Your task to perform on an android device: Show me popular games on the Play Store Image 0: 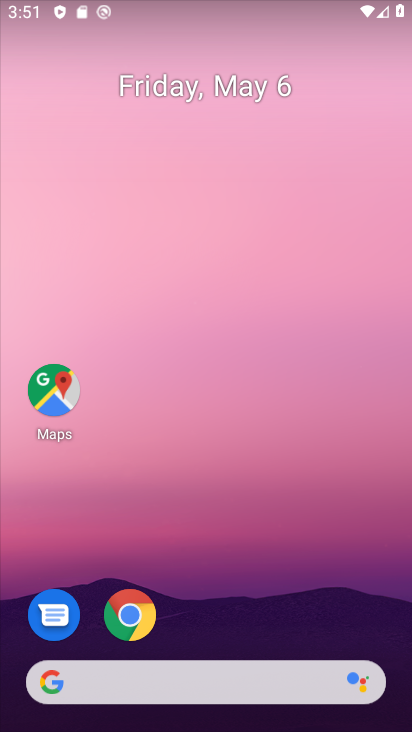
Step 0: drag from (193, 659) to (407, 320)
Your task to perform on an android device: Show me popular games on the Play Store Image 1: 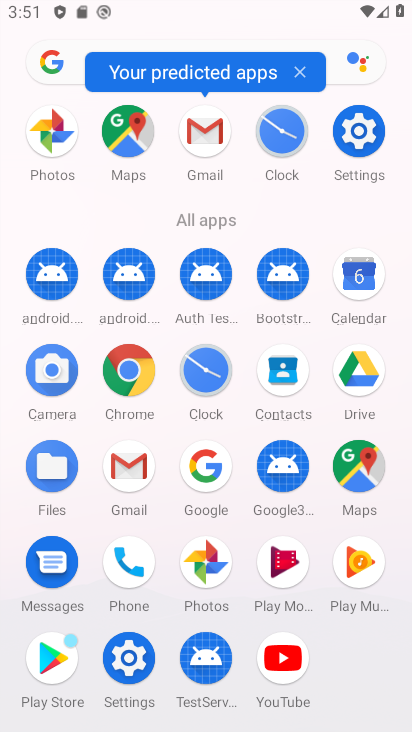
Step 1: click (42, 669)
Your task to perform on an android device: Show me popular games on the Play Store Image 2: 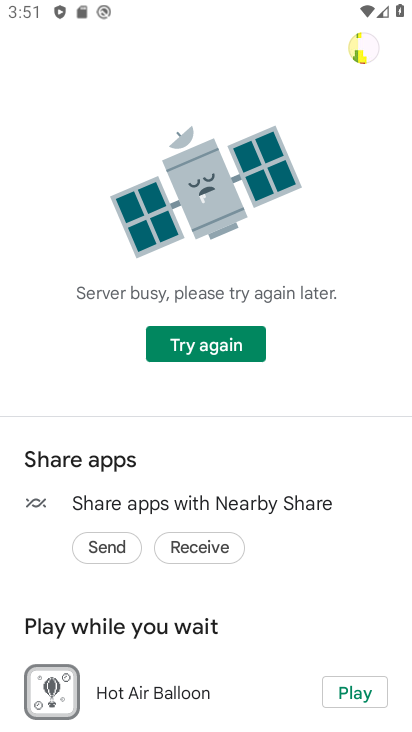
Step 2: click (187, 325)
Your task to perform on an android device: Show me popular games on the Play Store Image 3: 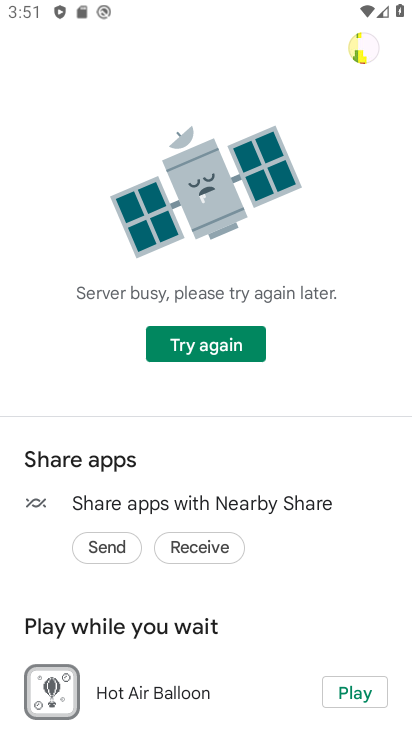
Step 3: click (184, 348)
Your task to perform on an android device: Show me popular games on the Play Store Image 4: 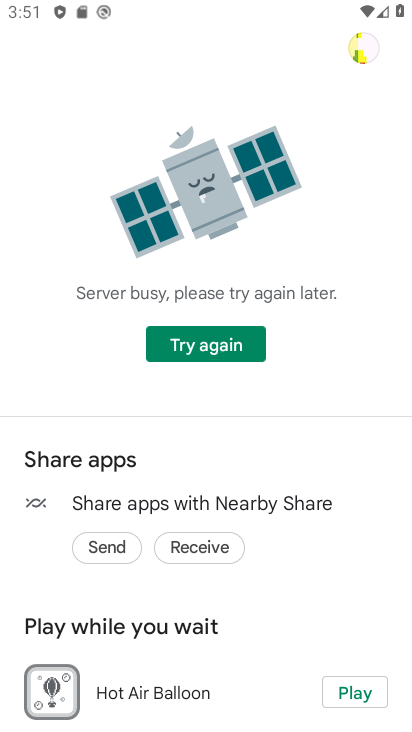
Step 4: click (187, 354)
Your task to perform on an android device: Show me popular games on the Play Store Image 5: 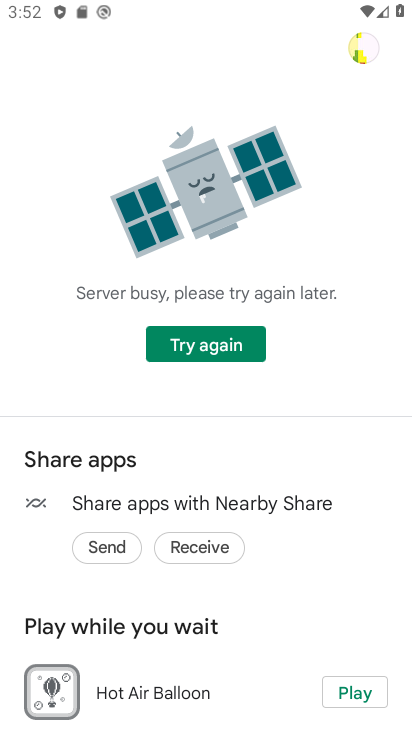
Step 5: click (187, 356)
Your task to perform on an android device: Show me popular games on the Play Store Image 6: 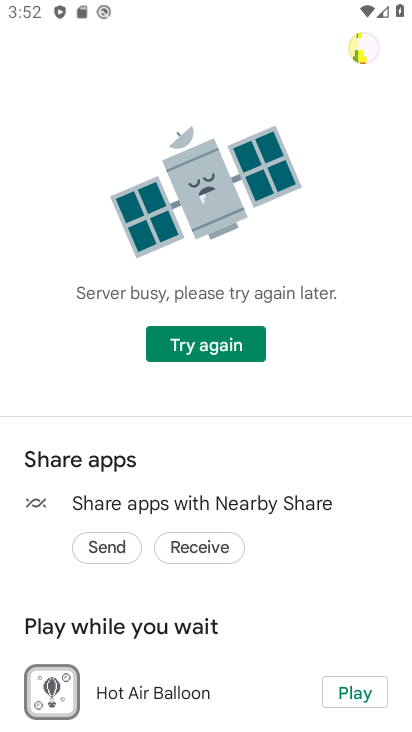
Step 6: task complete